Your task to perform on an android device: Open ESPN.com Image 0: 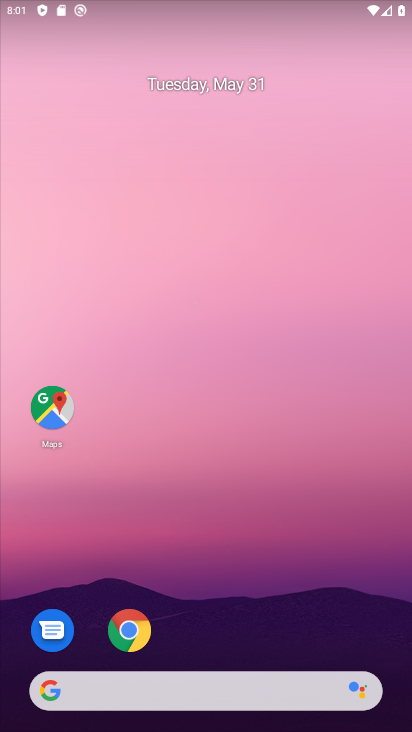
Step 0: click (231, 696)
Your task to perform on an android device: Open ESPN.com Image 1: 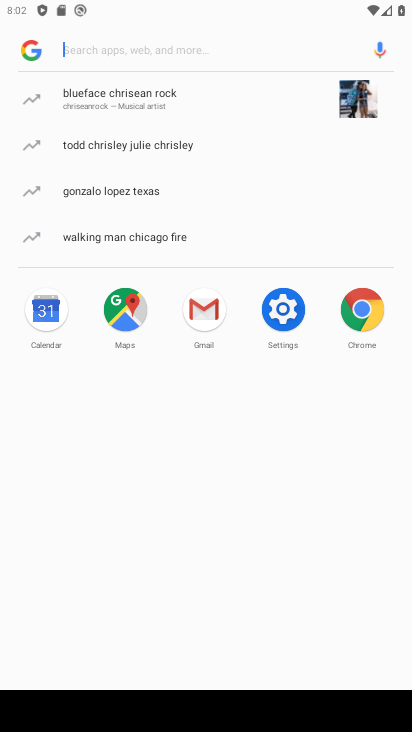
Step 1: type " ESPN.com"
Your task to perform on an android device: Open ESPN.com Image 2: 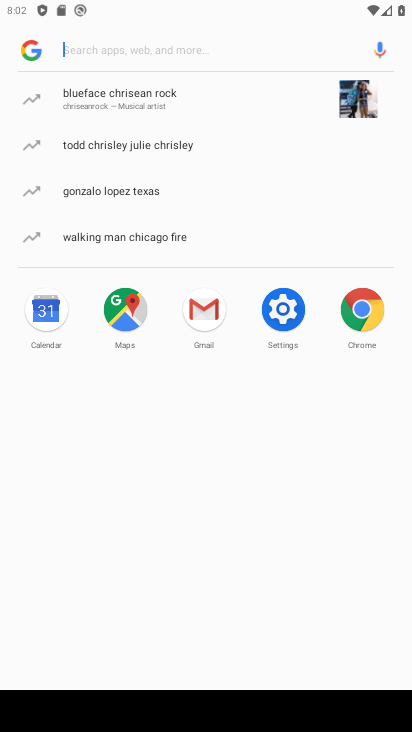
Step 2: click (185, 43)
Your task to perform on an android device: Open ESPN.com Image 3: 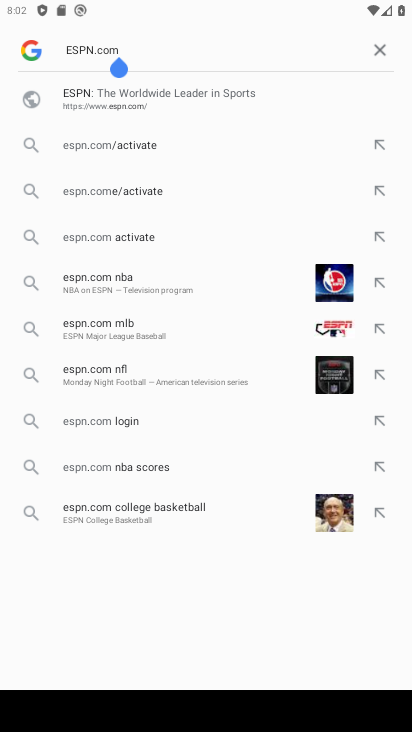
Step 3: click (152, 51)
Your task to perform on an android device: Open ESPN.com Image 4: 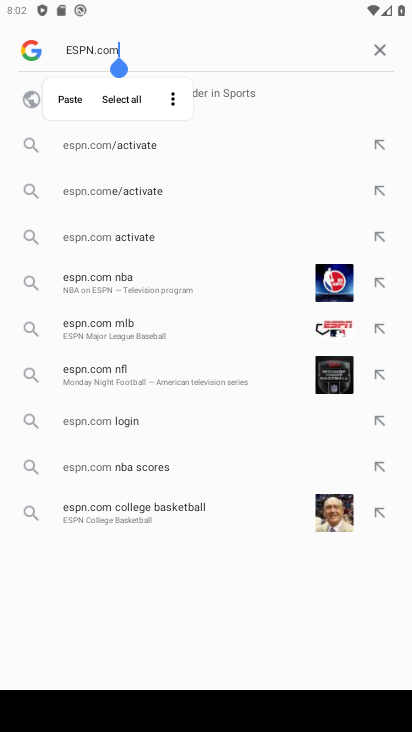
Step 4: click (153, 106)
Your task to perform on an android device: Open ESPN.com Image 5: 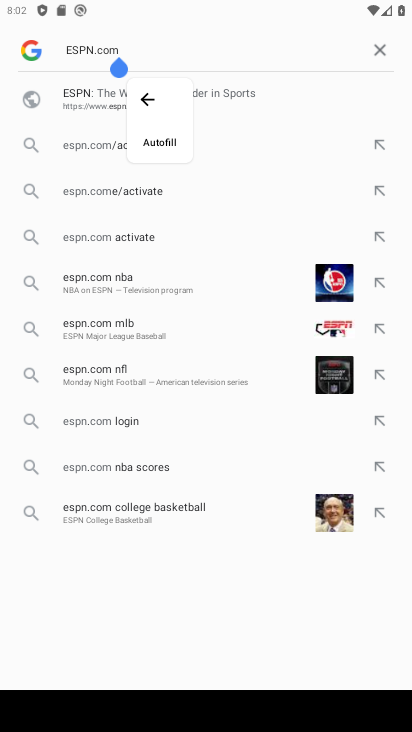
Step 5: click (62, 94)
Your task to perform on an android device: Open ESPN.com Image 6: 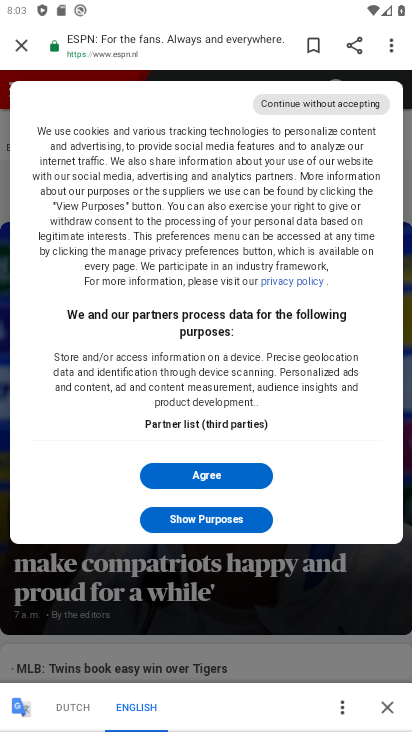
Step 6: click (328, 104)
Your task to perform on an android device: Open ESPN.com Image 7: 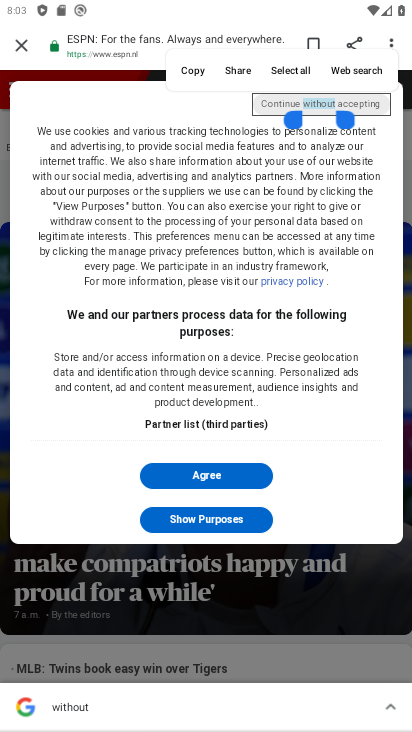
Step 7: click (210, 481)
Your task to perform on an android device: Open ESPN.com Image 8: 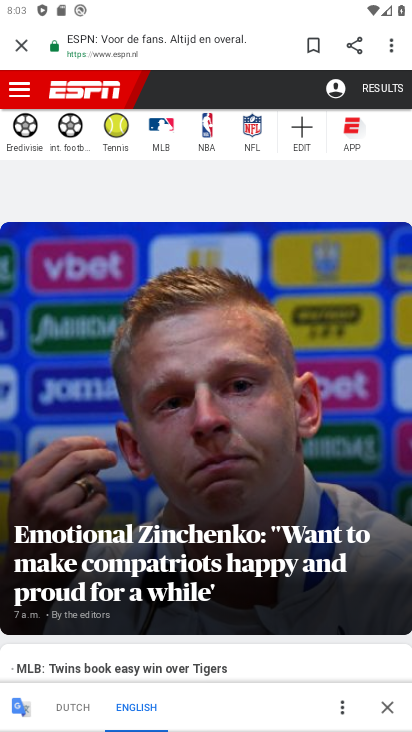
Step 8: task complete